Your task to perform on an android device: turn off picture-in-picture Image 0: 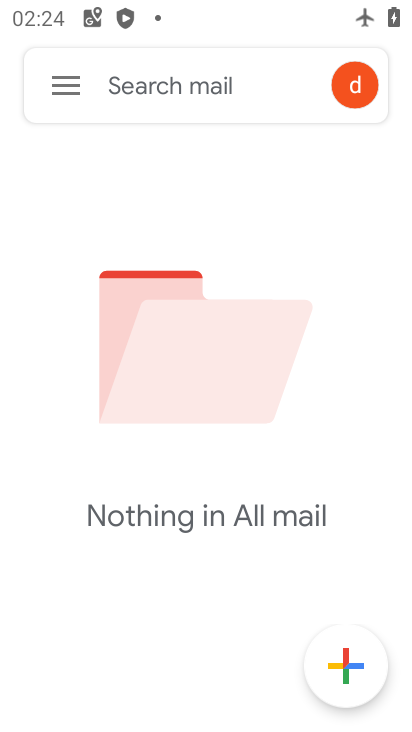
Step 0: press home button
Your task to perform on an android device: turn off picture-in-picture Image 1: 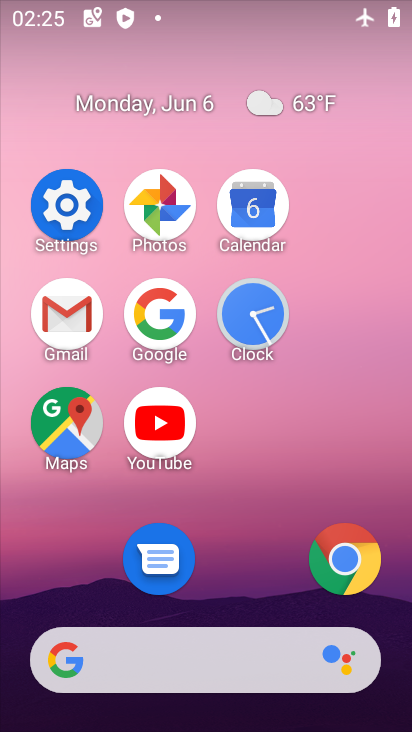
Step 1: click (332, 557)
Your task to perform on an android device: turn off picture-in-picture Image 2: 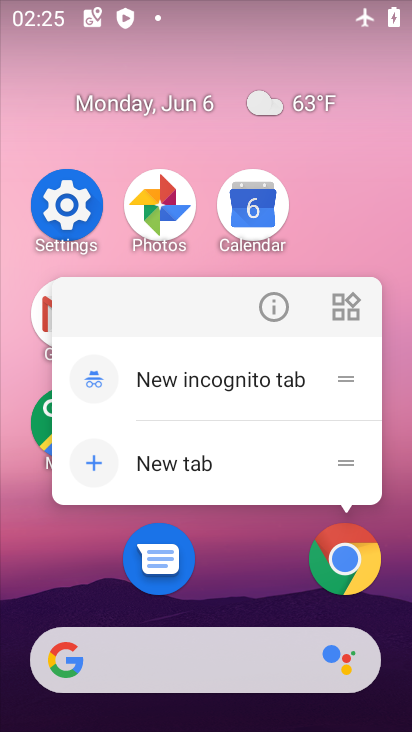
Step 2: click (285, 297)
Your task to perform on an android device: turn off picture-in-picture Image 3: 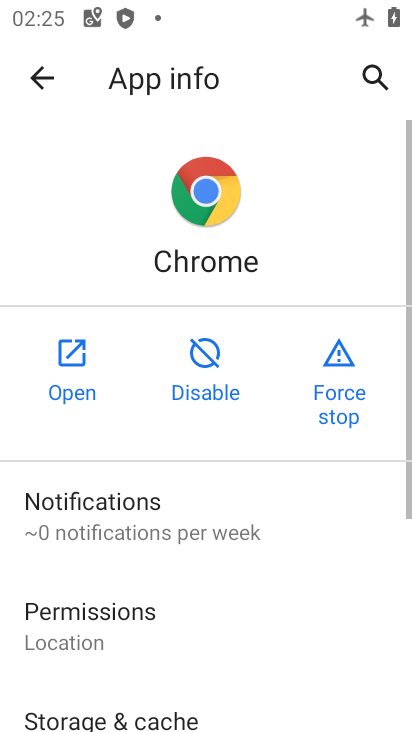
Step 3: drag from (254, 590) to (266, 235)
Your task to perform on an android device: turn off picture-in-picture Image 4: 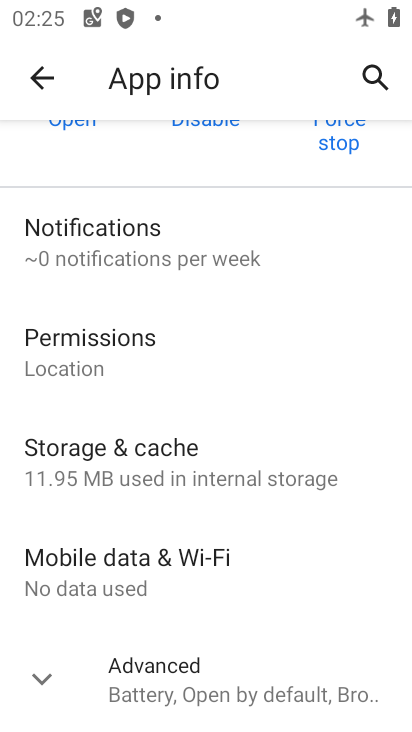
Step 4: click (216, 673)
Your task to perform on an android device: turn off picture-in-picture Image 5: 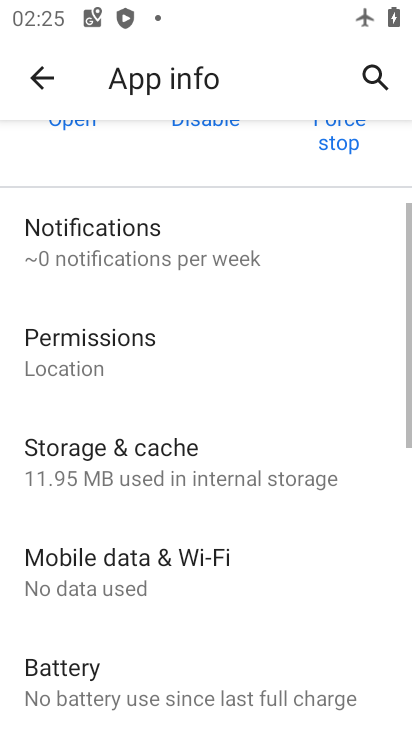
Step 5: drag from (216, 673) to (236, 277)
Your task to perform on an android device: turn off picture-in-picture Image 6: 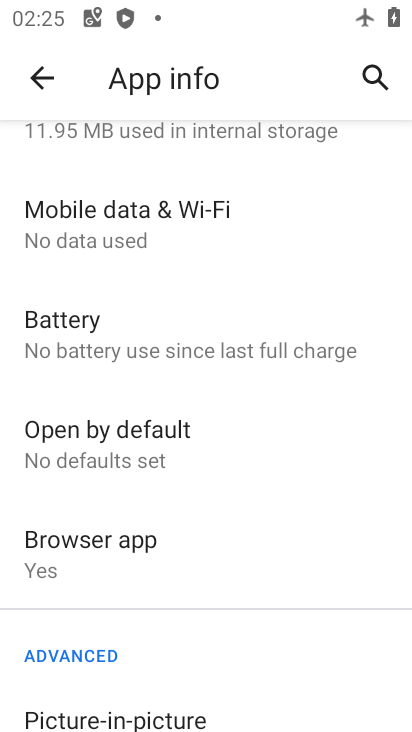
Step 6: drag from (199, 632) to (225, 323)
Your task to perform on an android device: turn off picture-in-picture Image 7: 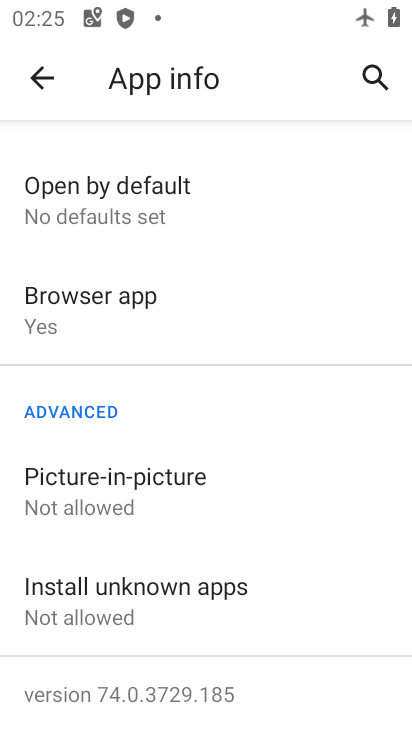
Step 7: click (175, 501)
Your task to perform on an android device: turn off picture-in-picture Image 8: 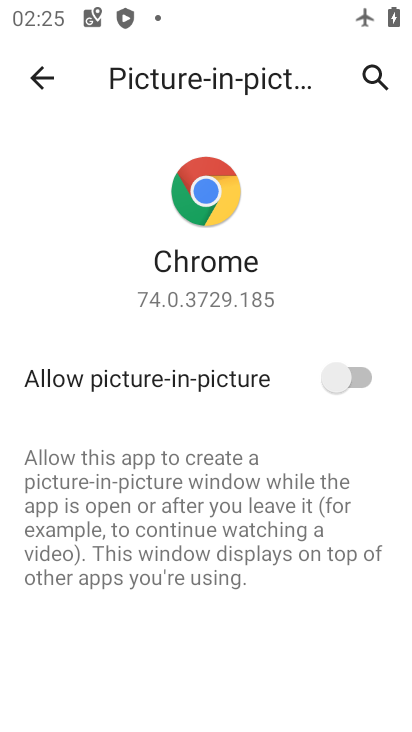
Step 8: task complete